Your task to perform on an android device: Search for vegetarian restaurants on Maps Image 0: 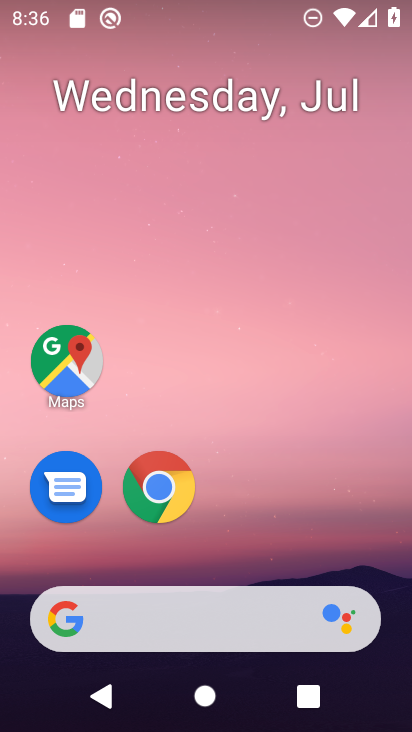
Step 0: press home button
Your task to perform on an android device: Search for vegetarian restaurants on Maps Image 1: 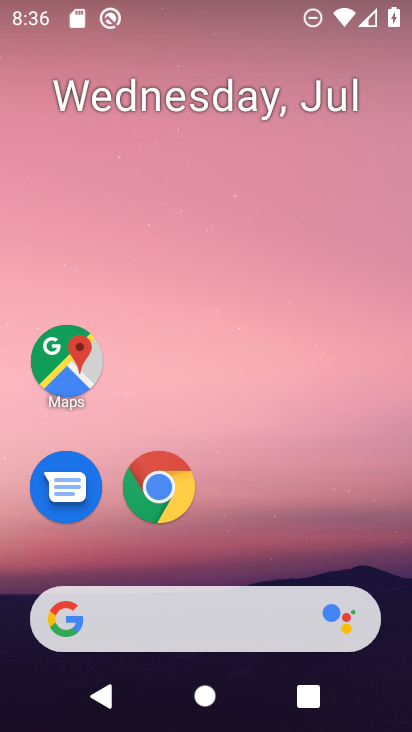
Step 1: drag from (325, 546) to (350, 70)
Your task to perform on an android device: Search for vegetarian restaurants on Maps Image 2: 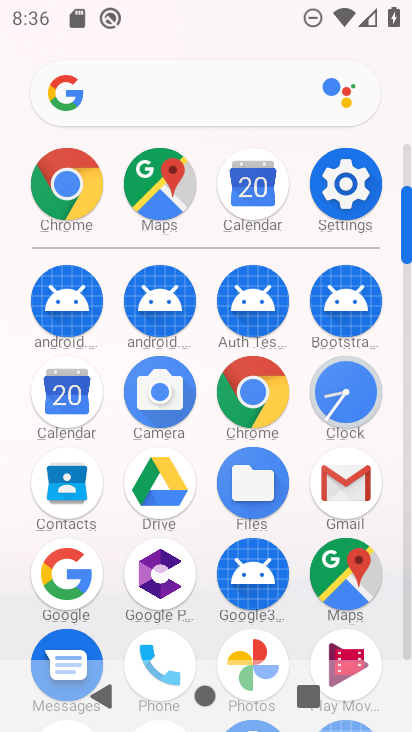
Step 2: click (356, 570)
Your task to perform on an android device: Search for vegetarian restaurants on Maps Image 3: 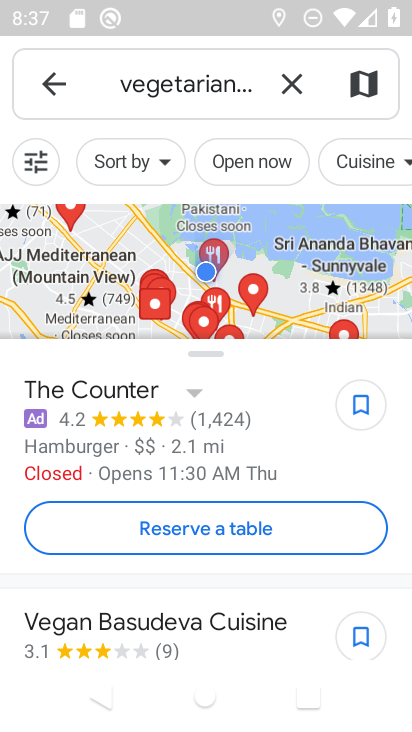
Step 3: task complete